Your task to perform on an android device: change text size in settings app Image 0: 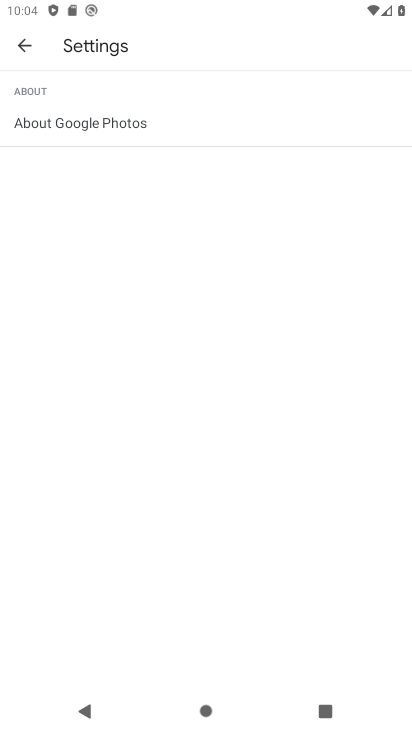
Step 0: press home button
Your task to perform on an android device: change text size in settings app Image 1: 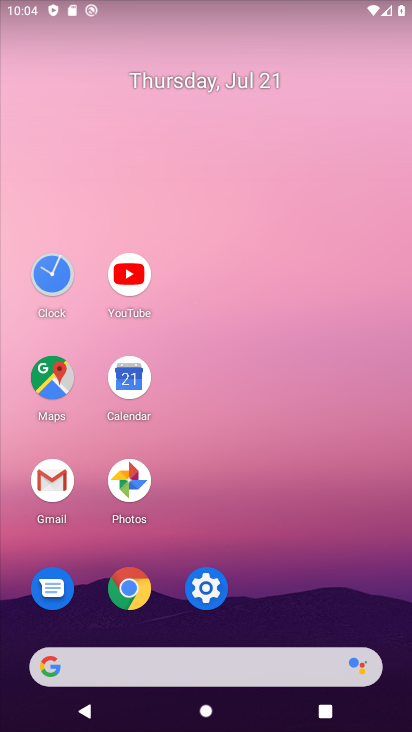
Step 1: click (213, 595)
Your task to perform on an android device: change text size in settings app Image 2: 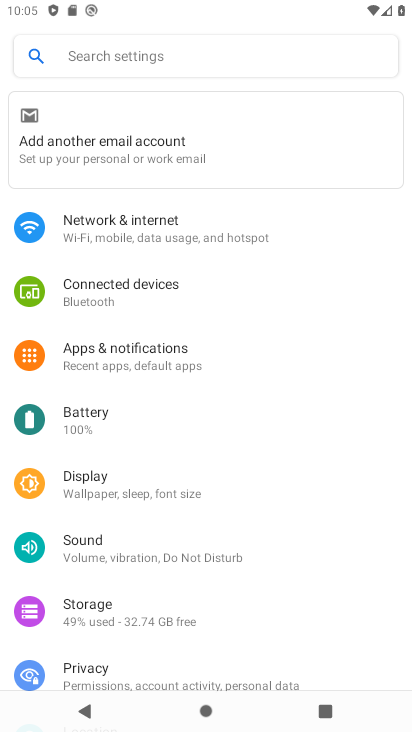
Step 2: click (100, 472)
Your task to perform on an android device: change text size in settings app Image 3: 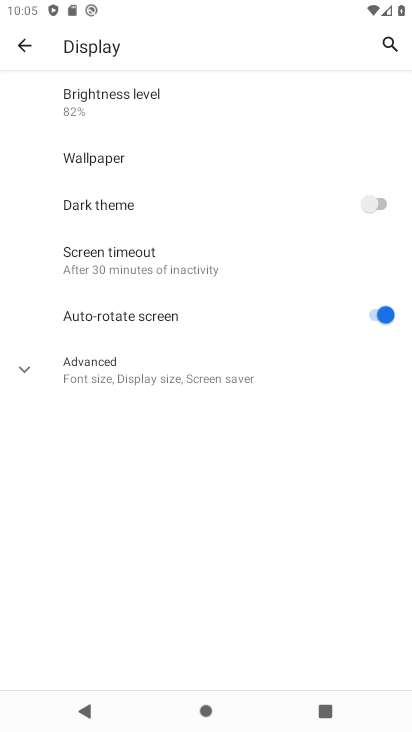
Step 3: click (90, 369)
Your task to perform on an android device: change text size in settings app Image 4: 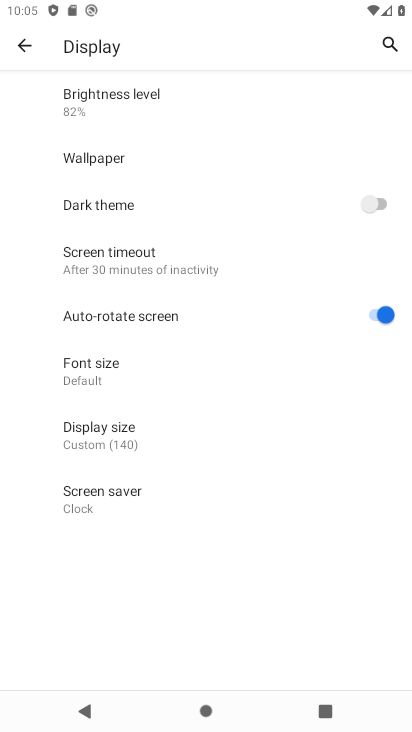
Step 4: click (71, 361)
Your task to perform on an android device: change text size in settings app Image 5: 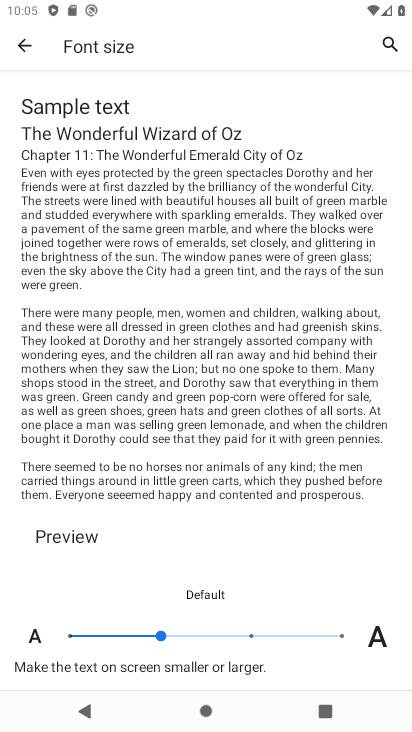
Step 5: click (240, 631)
Your task to perform on an android device: change text size in settings app Image 6: 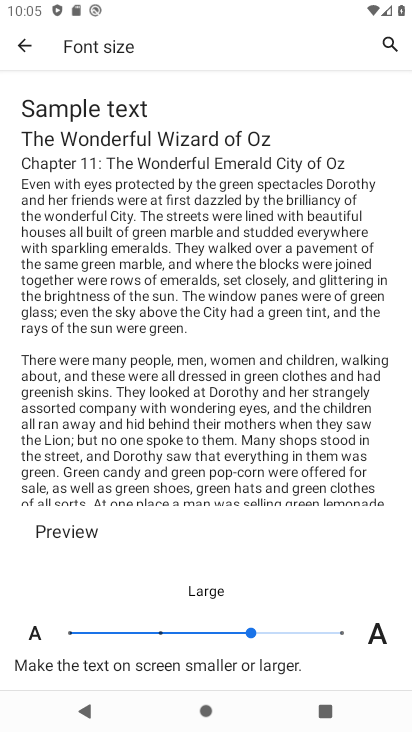
Step 6: task complete